Your task to perform on an android device: turn on priority inbox in the gmail app Image 0: 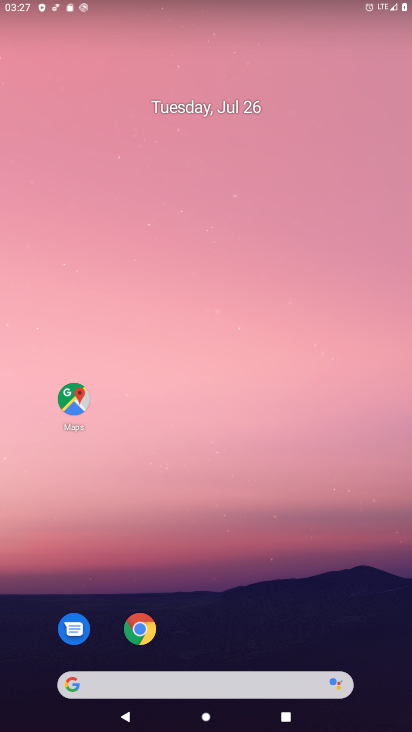
Step 0: drag from (289, 601) to (290, 52)
Your task to perform on an android device: turn on priority inbox in the gmail app Image 1: 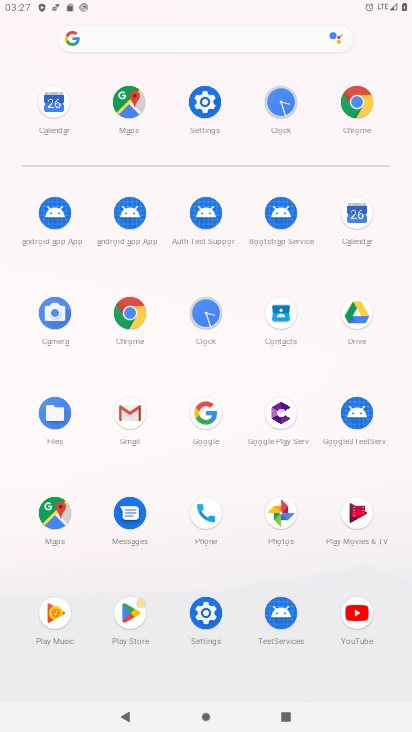
Step 1: click (132, 409)
Your task to perform on an android device: turn on priority inbox in the gmail app Image 2: 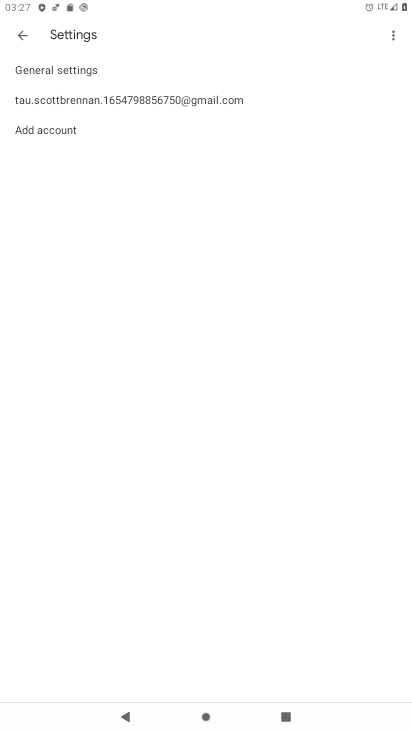
Step 2: click (193, 99)
Your task to perform on an android device: turn on priority inbox in the gmail app Image 3: 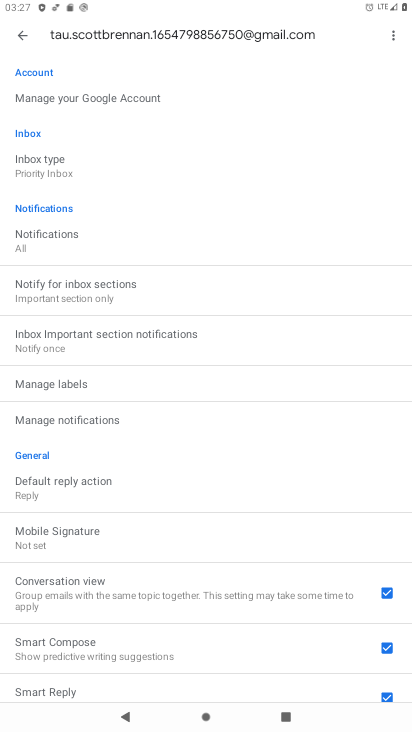
Step 3: click (48, 160)
Your task to perform on an android device: turn on priority inbox in the gmail app Image 4: 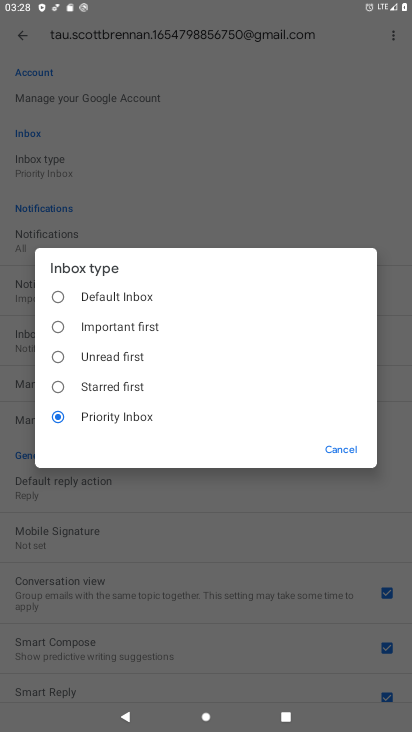
Step 4: click (110, 410)
Your task to perform on an android device: turn on priority inbox in the gmail app Image 5: 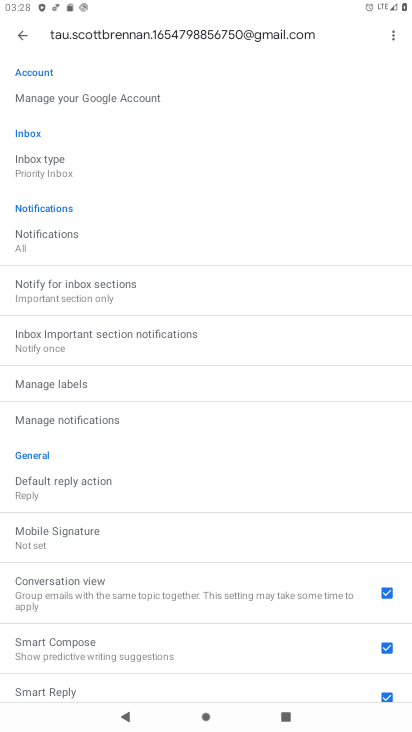
Step 5: task complete